Your task to perform on an android device: Open battery settings Image 0: 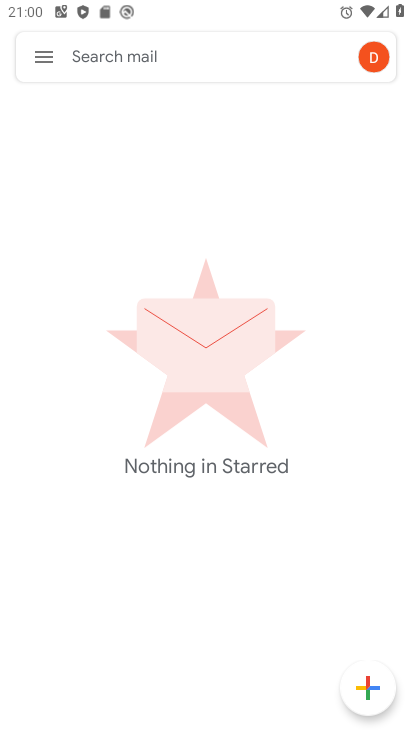
Step 0: press home button
Your task to perform on an android device: Open battery settings Image 1: 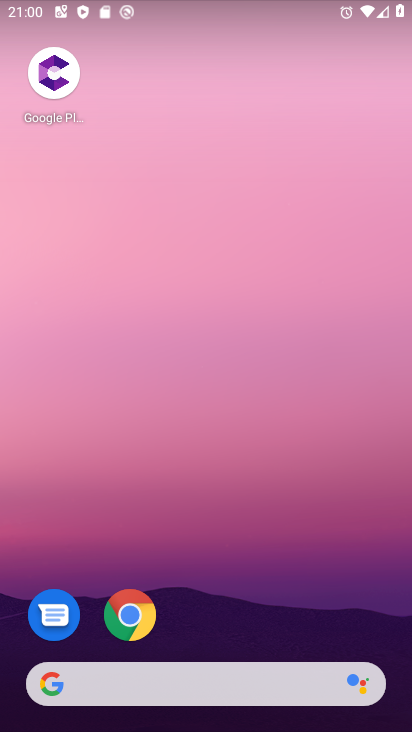
Step 1: drag from (228, 618) to (269, 101)
Your task to perform on an android device: Open battery settings Image 2: 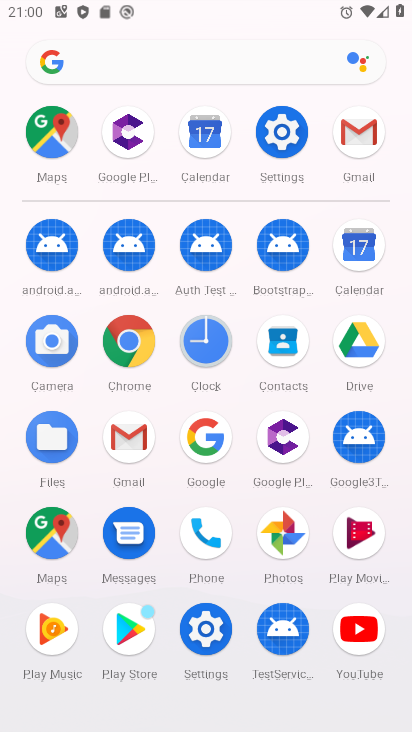
Step 2: click (290, 126)
Your task to perform on an android device: Open battery settings Image 3: 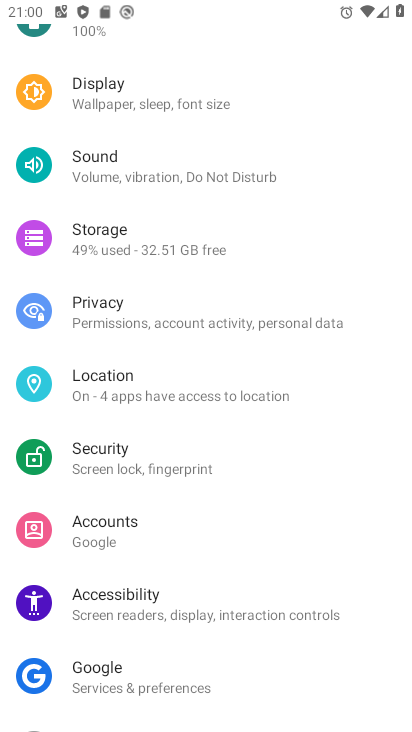
Step 3: drag from (205, 143) to (222, 409)
Your task to perform on an android device: Open battery settings Image 4: 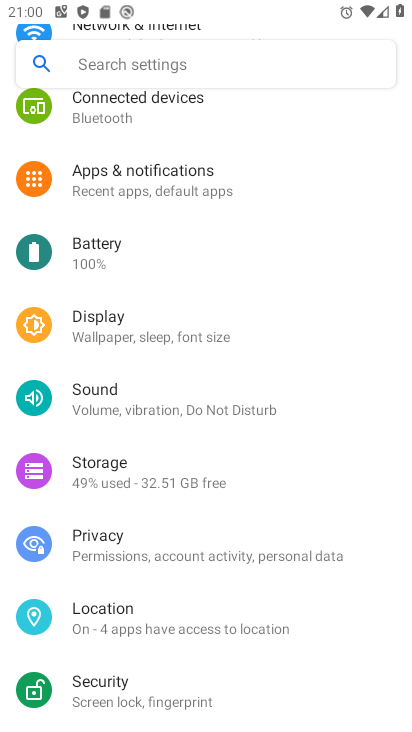
Step 4: click (102, 261)
Your task to perform on an android device: Open battery settings Image 5: 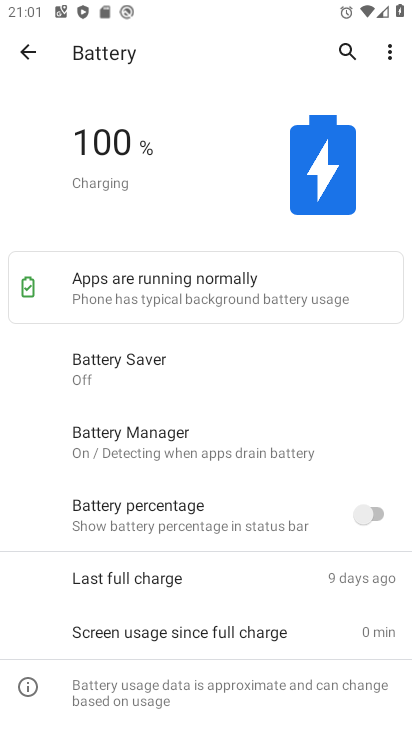
Step 5: task complete